Your task to perform on an android device: turn off notifications settings in the gmail app Image 0: 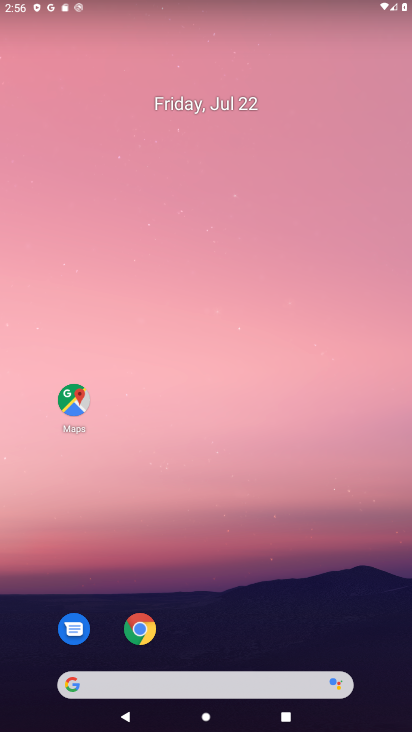
Step 0: drag from (231, 580) to (161, 109)
Your task to perform on an android device: turn off notifications settings in the gmail app Image 1: 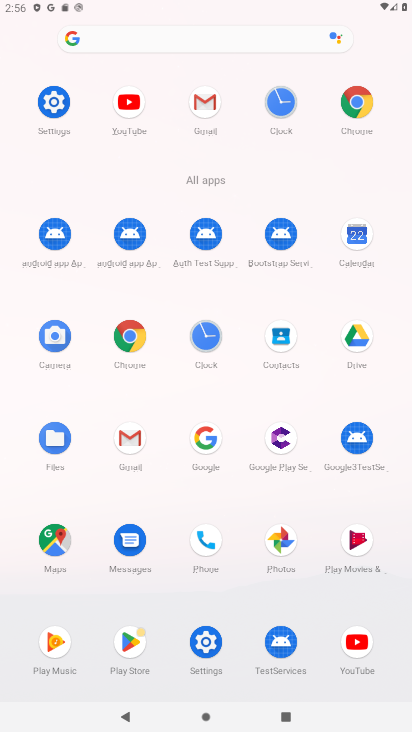
Step 1: click (202, 105)
Your task to perform on an android device: turn off notifications settings in the gmail app Image 2: 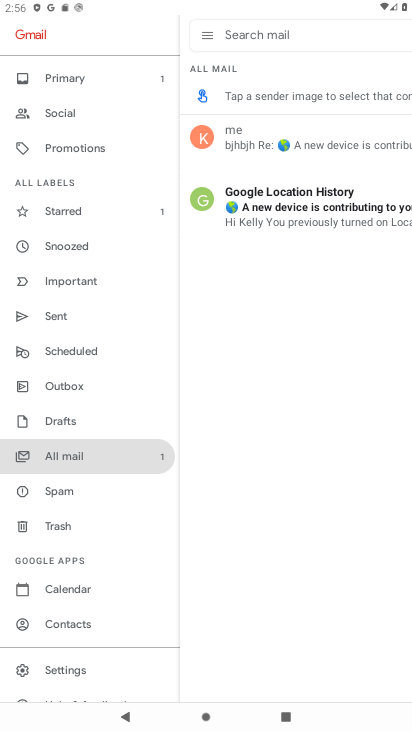
Step 2: click (57, 668)
Your task to perform on an android device: turn off notifications settings in the gmail app Image 3: 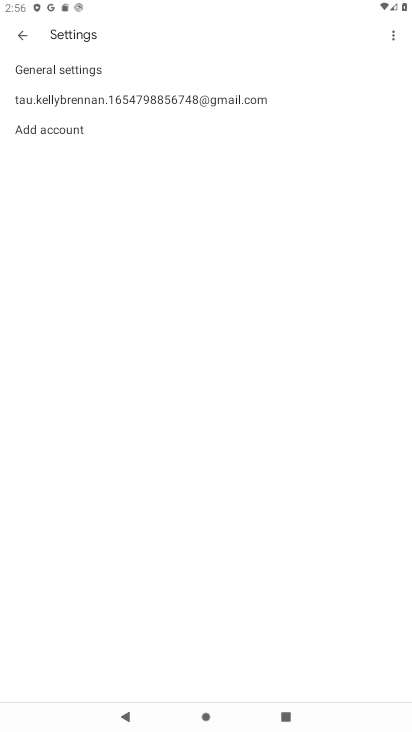
Step 3: click (60, 70)
Your task to perform on an android device: turn off notifications settings in the gmail app Image 4: 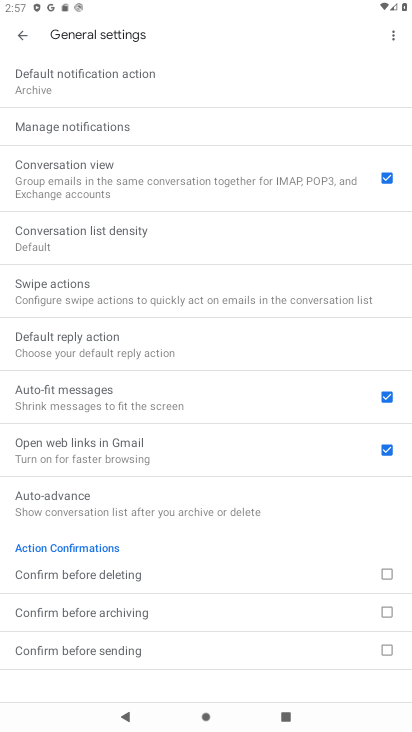
Step 4: click (77, 123)
Your task to perform on an android device: turn off notifications settings in the gmail app Image 5: 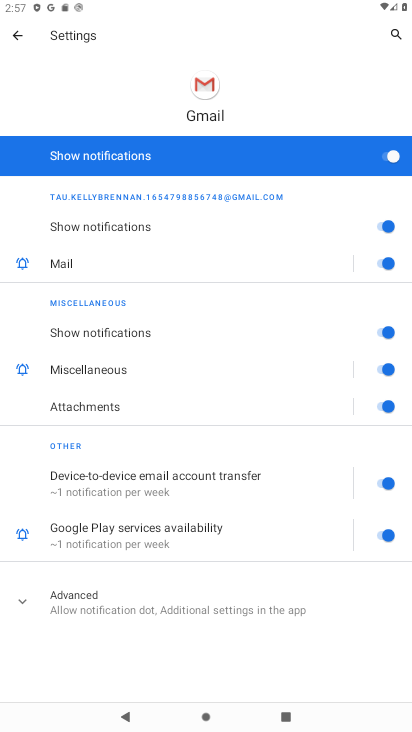
Step 5: click (387, 166)
Your task to perform on an android device: turn off notifications settings in the gmail app Image 6: 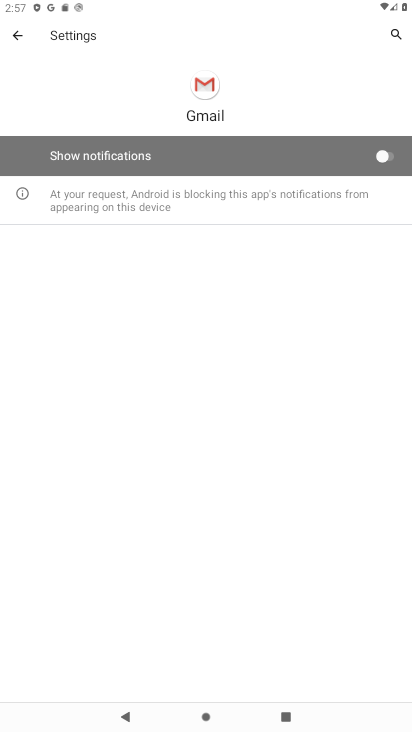
Step 6: task complete